Your task to perform on an android device: turn notification dots on Image 0: 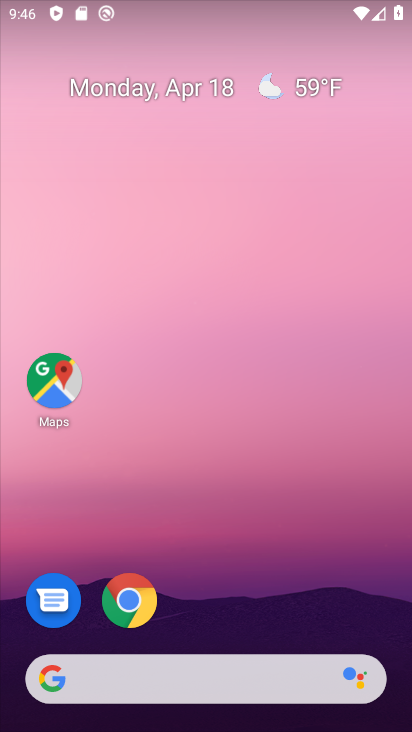
Step 0: drag from (229, 586) to (225, 0)
Your task to perform on an android device: turn notification dots on Image 1: 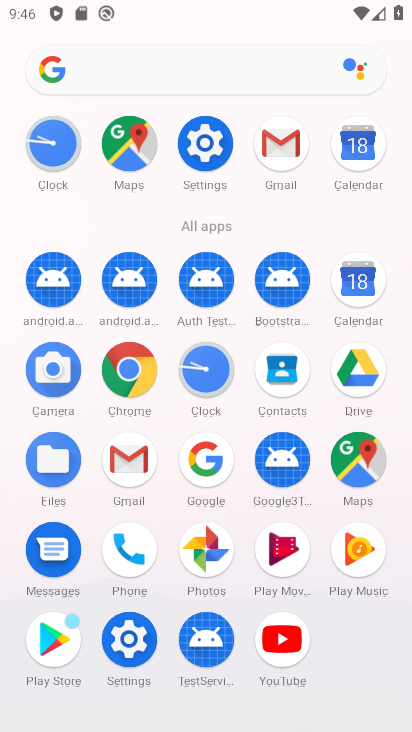
Step 1: click (203, 133)
Your task to perform on an android device: turn notification dots on Image 2: 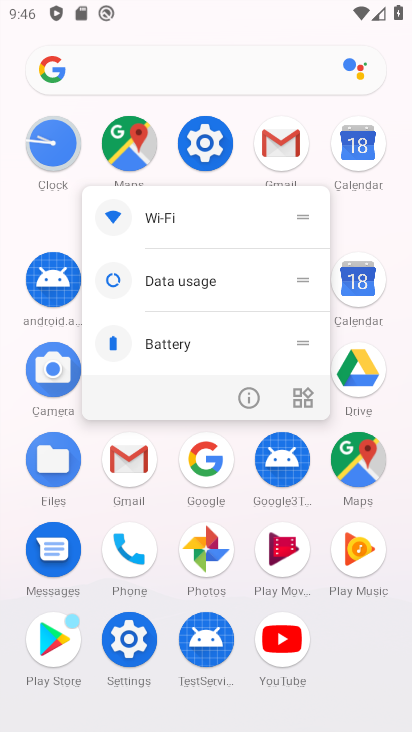
Step 2: click (212, 146)
Your task to perform on an android device: turn notification dots on Image 3: 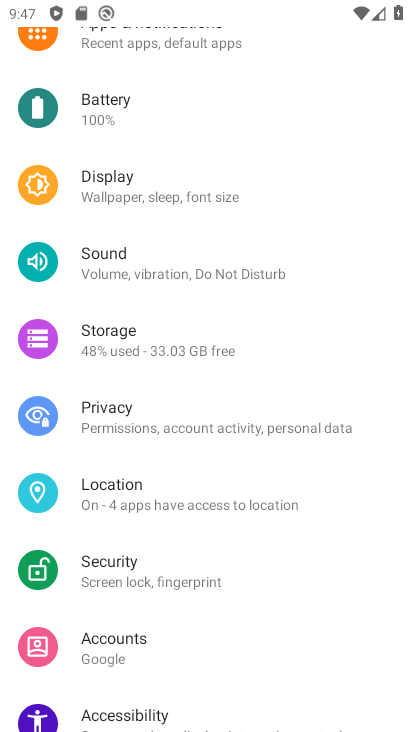
Step 3: drag from (173, 133) to (163, 589)
Your task to perform on an android device: turn notification dots on Image 4: 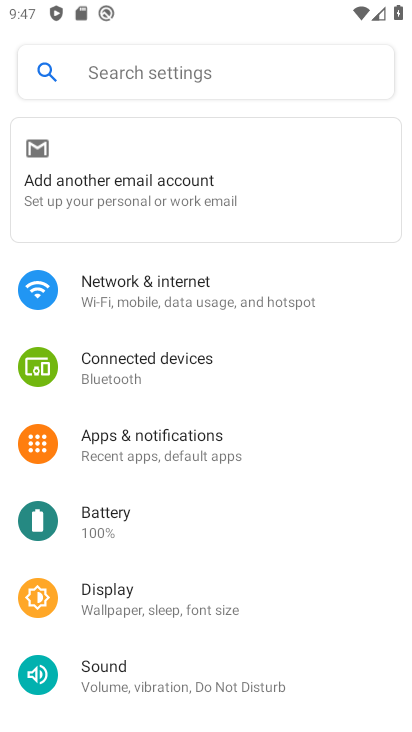
Step 4: click (154, 434)
Your task to perform on an android device: turn notification dots on Image 5: 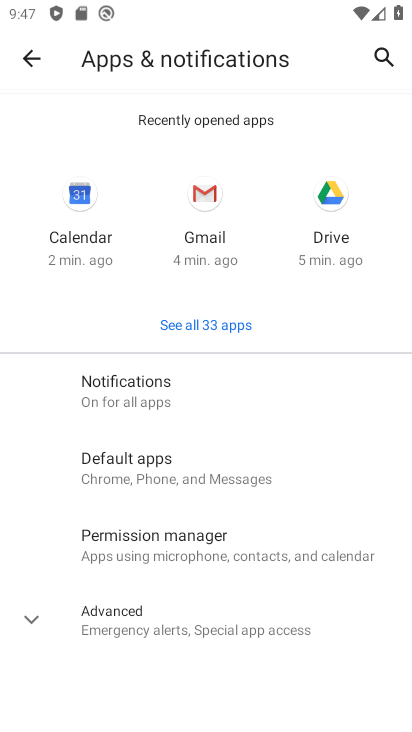
Step 5: click (138, 380)
Your task to perform on an android device: turn notification dots on Image 6: 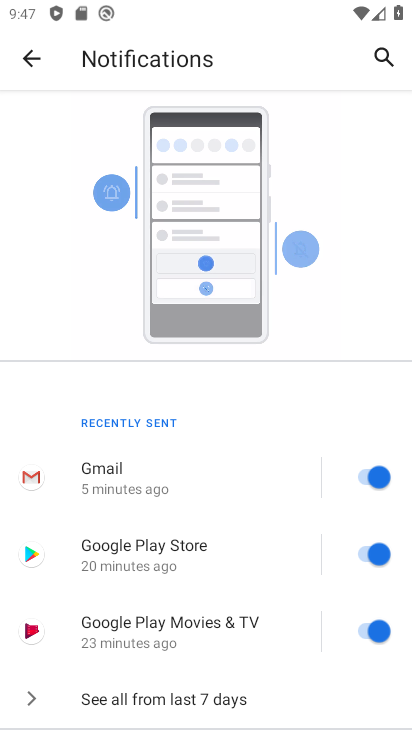
Step 6: drag from (211, 652) to (221, 144)
Your task to perform on an android device: turn notification dots on Image 7: 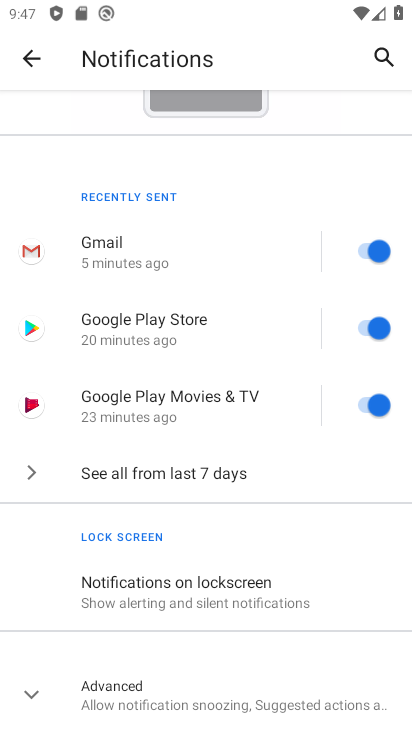
Step 7: drag from (204, 560) to (202, 208)
Your task to perform on an android device: turn notification dots on Image 8: 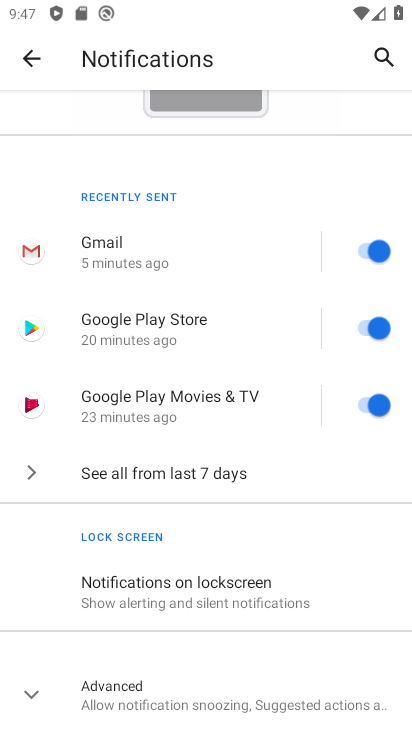
Step 8: click (106, 699)
Your task to perform on an android device: turn notification dots on Image 9: 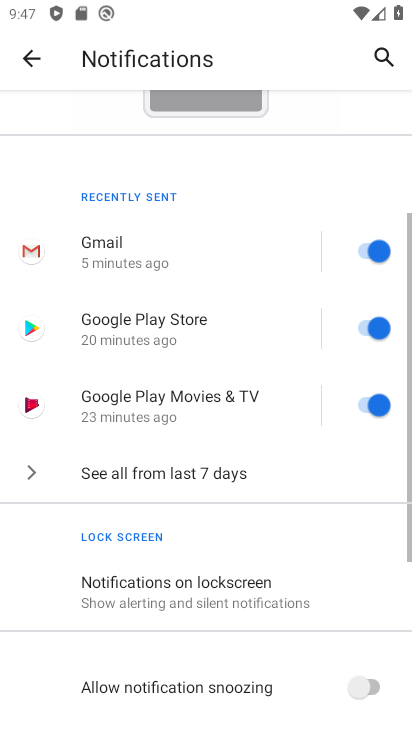
Step 9: task complete